Your task to perform on an android device: turn off translation in the chrome app Image 0: 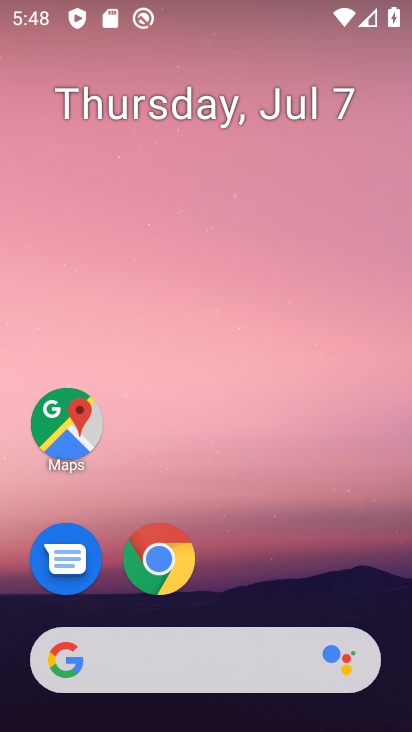
Step 0: drag from (306, 613) to (330, 259)
Your task to perform on an android device: turn off translation in the chrome app Image 1: 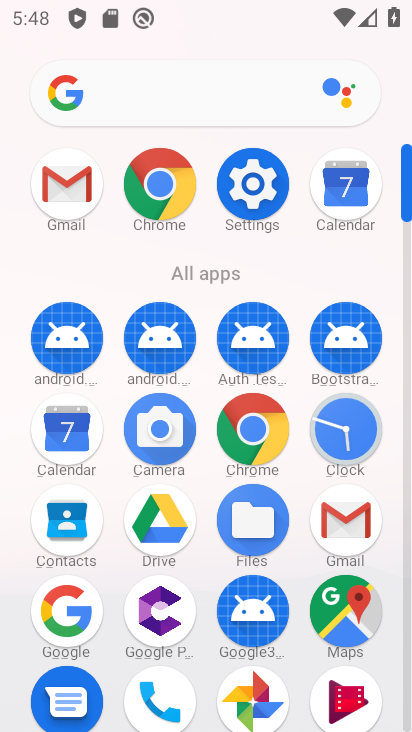
Step 1: click (263, 435)
Your task to perform on an android device: turn off translation in the chrome app Image 2: 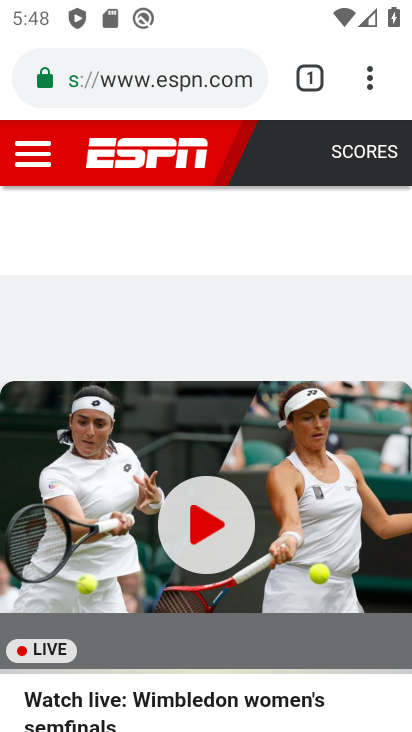
Step 2: click (374, 91)
Your task to perform on an android device: turn off translation in the chrome app Image 3: 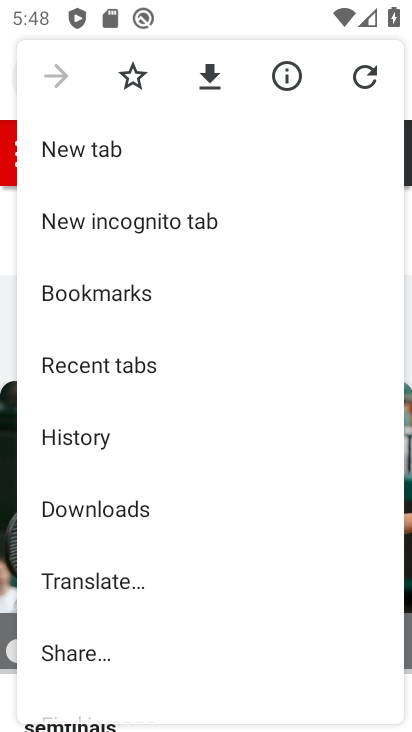
Step 3: click (106, 577)
Your task to perform on an android device: turn off translation in the chrome app Image 4: 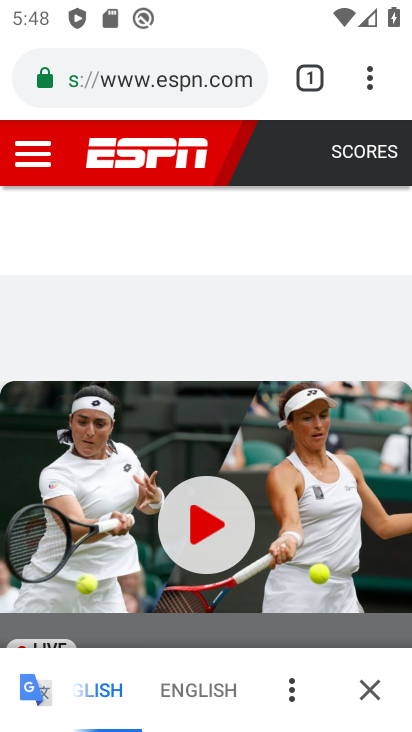
Step 4: click (292, 698)
Your task to perform on an android device: turn off translation in the chrome app Image 5: 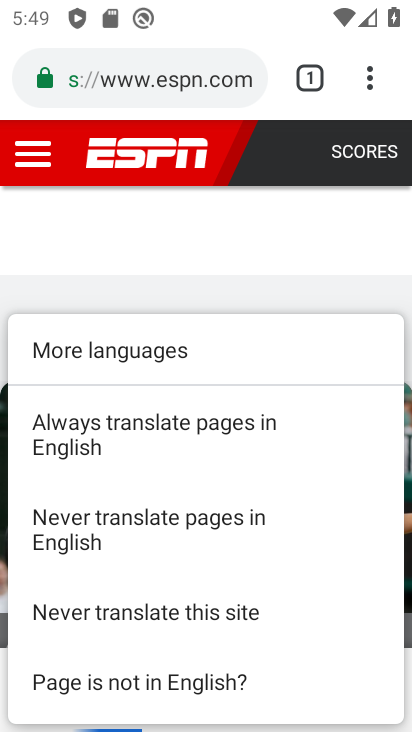
Step 5: click (229, 536)
Your task to perform on an android device: turn off translation in the chrome app Image 6: 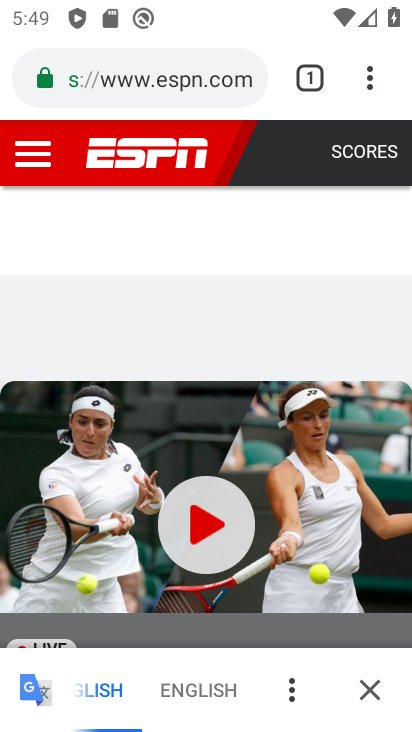
Step 6: task complete